Your task to perform on an android device: Add lenovo thinkpad to the cart on newegg.com, then select checkout. Image 0: 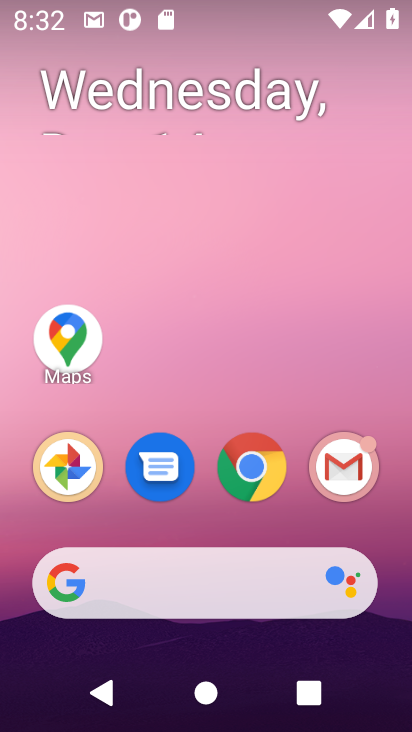
Step 0: click (289, 470)
Your task to perform on an android device: Add lenovo thinkpad to the cart on newegg.com, then select checkout. Image 1: 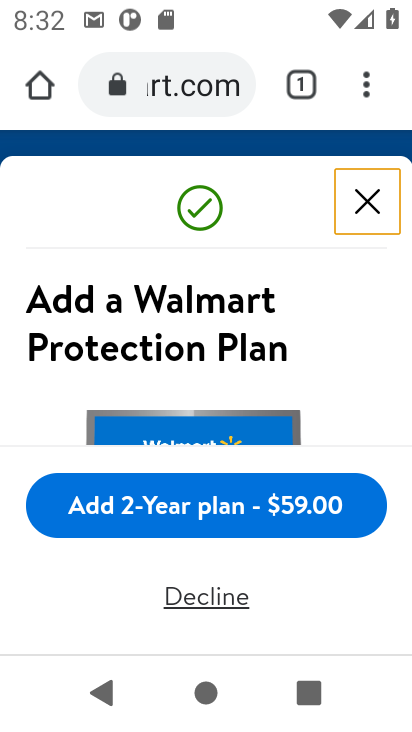
Step 1: click (175, 112)
Your task to perform on an android device: Add lenovo thinkpad to the cart on newegg.com, then select checkout. Image 2: 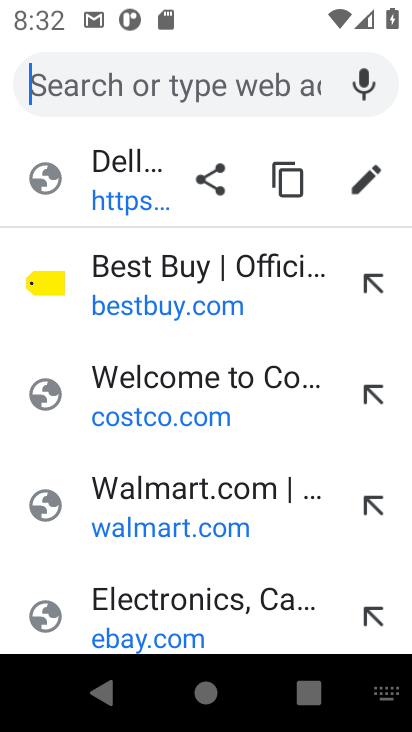
Step 2: type "newegg"
Your task to perform on an android device: Add lenovo thinkpad to the cart on newegg.com, then select checkout. Image 3: 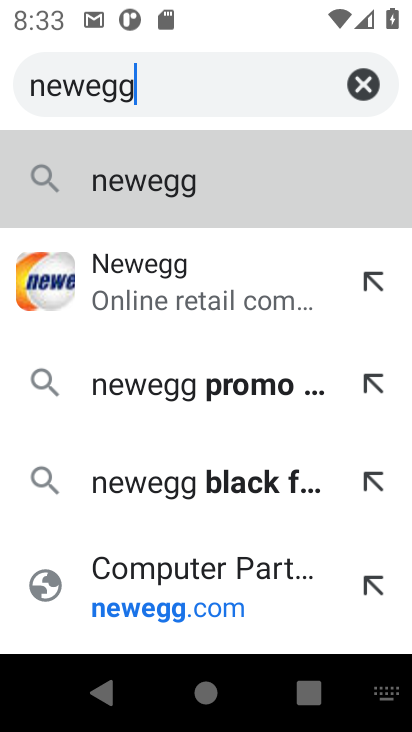
Step 3: click (206, 329)
Your task to perform on an android device: Add lenovo thinkpad to the cart on newegg.com, then select checkout. Image 4: 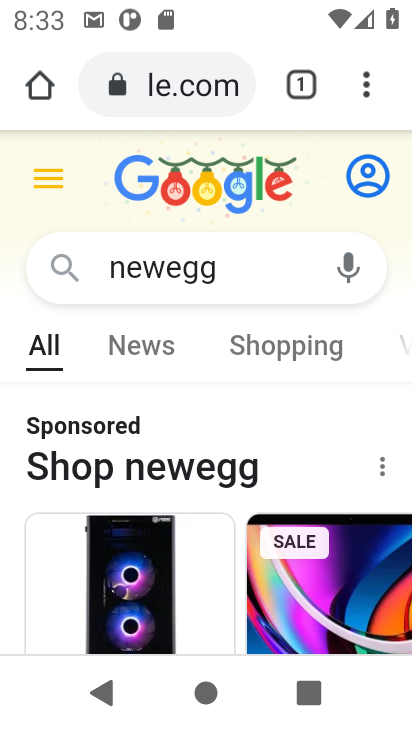
Step 4: click (162, 554)
Your task to perform on an android device: Add lenovo thinkpad to the cart on newegg.com, then select checkout. Image 5: 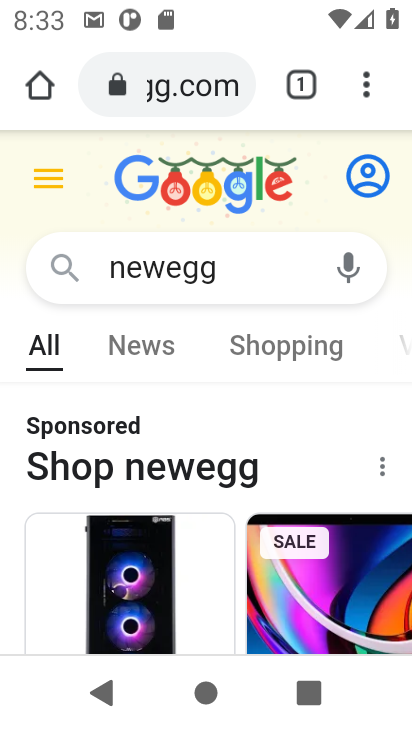
Step 5: click (162, 554)
Your task to perform on an android device: Add lenovo thinkpad to the cart on newegg.com, then select checkout. Image 6: 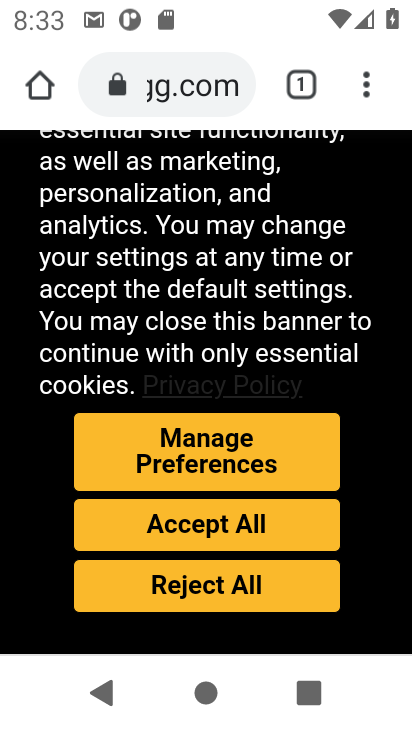
Step 6: click (221, 519)
Your task to perform on an android device: Add lenovo thinkpad to the cart on newegg.com, then select checkout. Image 7: 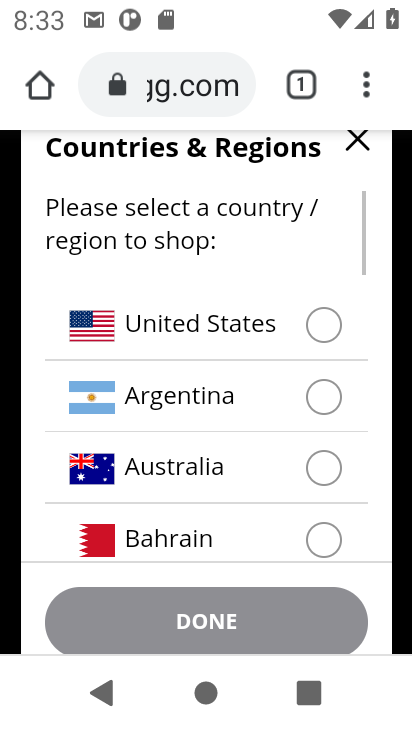
Step 7: click (242, 346)
Your task to perform on an android device: Add lenovo thinkpad to the cart on newegg.com, then select checkout. Image 8: 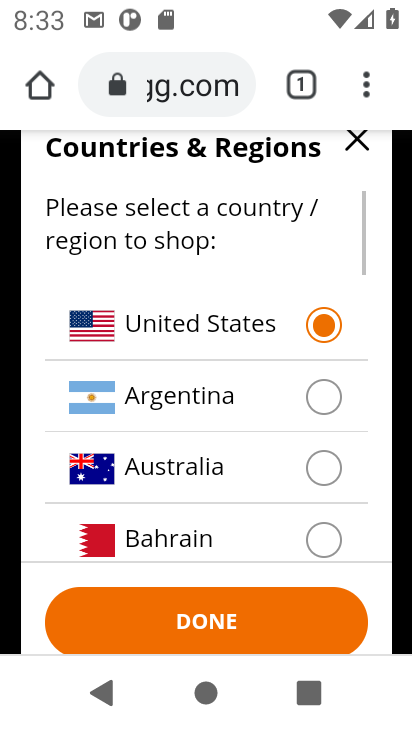
Step 8: click (287, 629)
Your task to perform on an android device: Add lenovo thinkpad to the cart on newegg.com, then select checkout. Image 9: 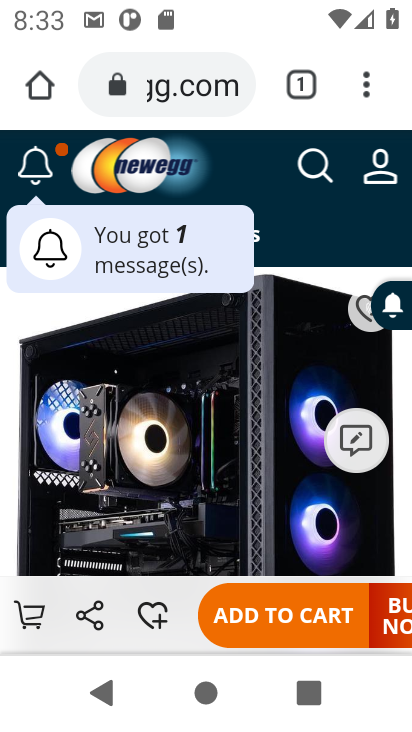
Step 9: click (286, 617)
Your task to perform on an android device: Add lenovo thinkpad to the cart on newegg.com, then select checkout. Image 10: 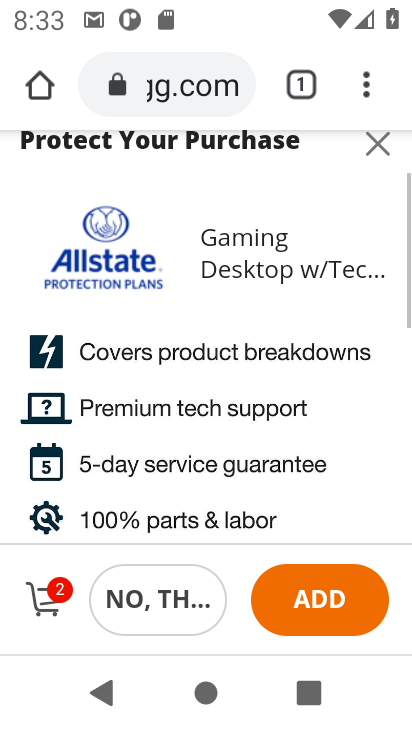
Step 10: task complete